Your task to perform on an android device: turn off sleep mode Image 0: 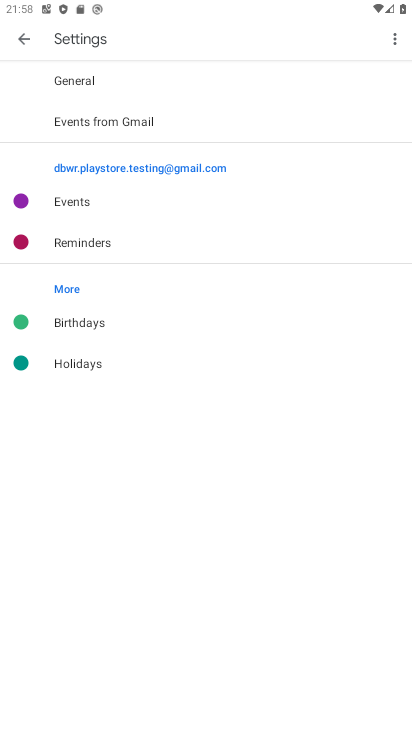
Step 0: press home button
Your task to perform on an android device: turn off sleep mode Image 1: 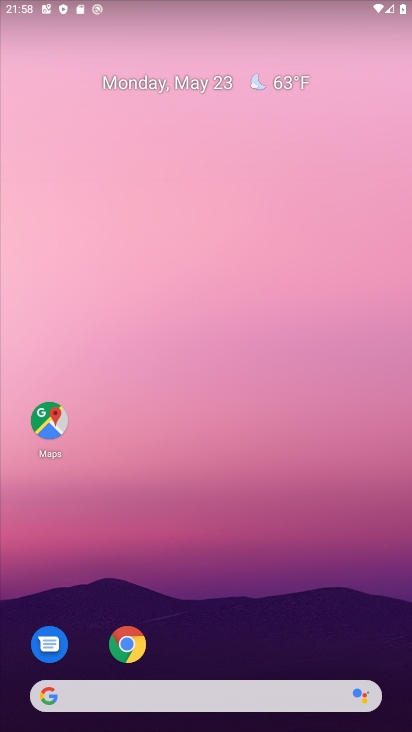
Step 1: drag from (227, 650) to (242, 6)
Your task to perform on an android device: turn off sleep mode Image 2: 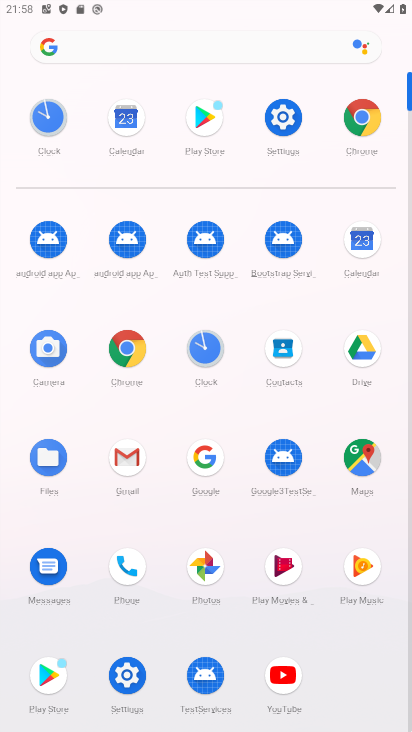
Step 2: click (281, 110)
Your task to perform on an android device: turn off sleep mode Image 3: 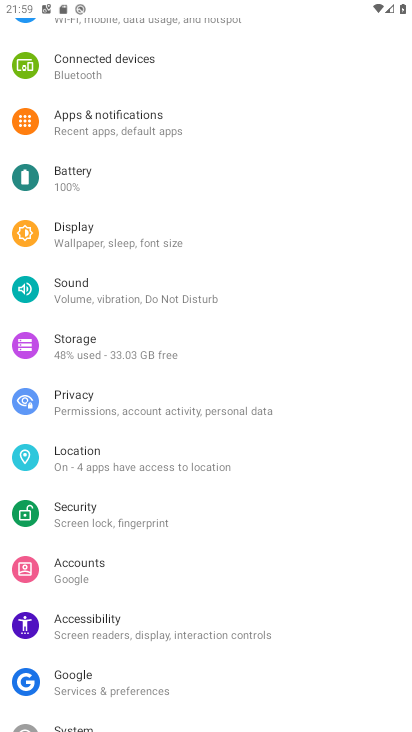
Step 3: click (100, 232)
Your task to perform on an android device: turn off sleep mode Image 4: 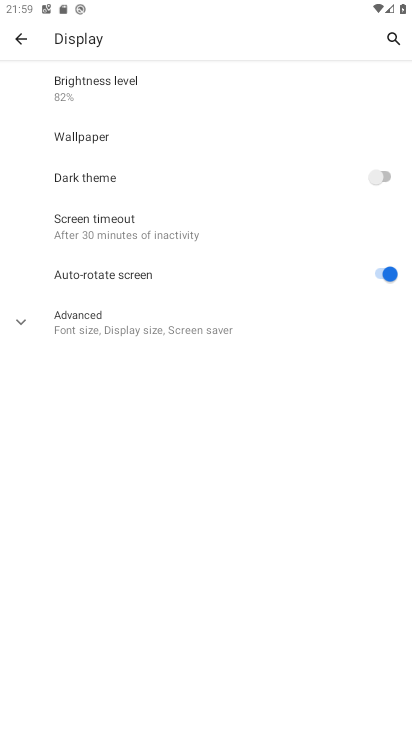
Step 4: click (22, 312)
Your task to perform on an android device: turn off sleep mode Image 5: 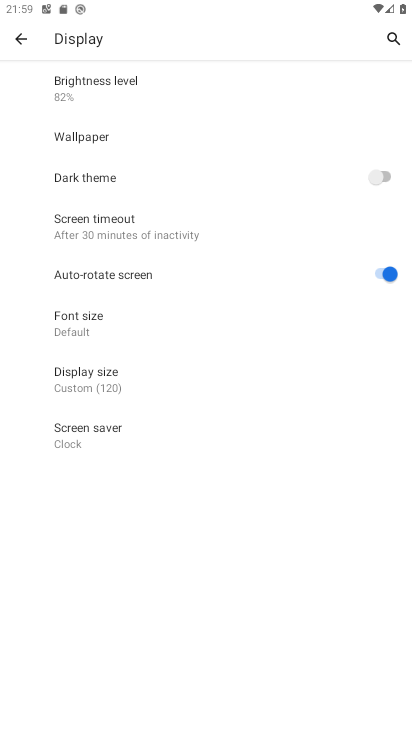
Step 5: task complete